Your task to perform on an android device: open wifi settings Image 0: 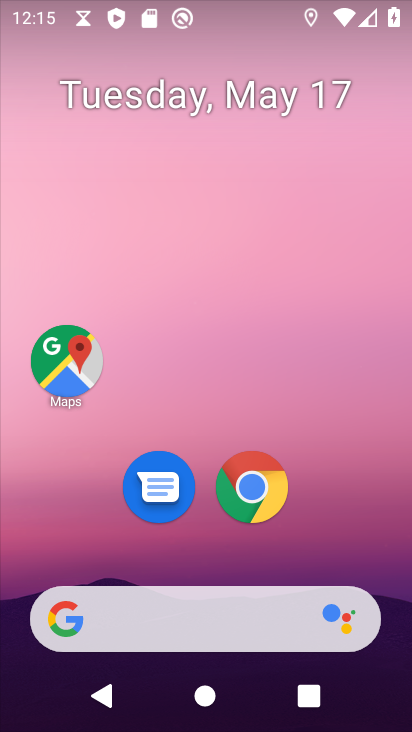
Step 0: drag from (312, 398) to (206, 7)
Your task to perform on an android device: open wifi settings Image 1: 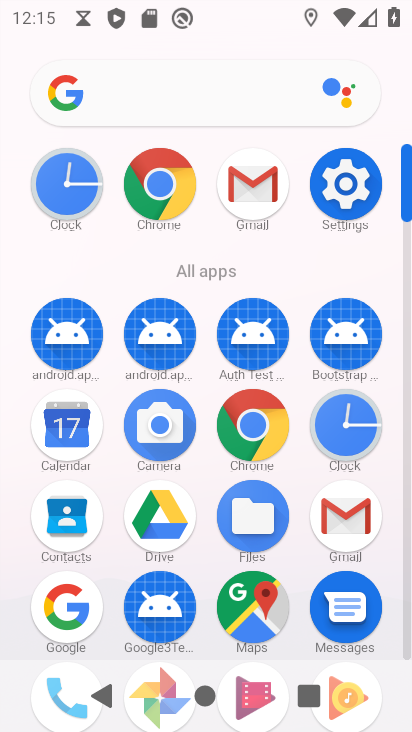
Step 1: drag from (10, 533) to (0, 218)
Your task to perform on an android device: open wifi settings Image 2: 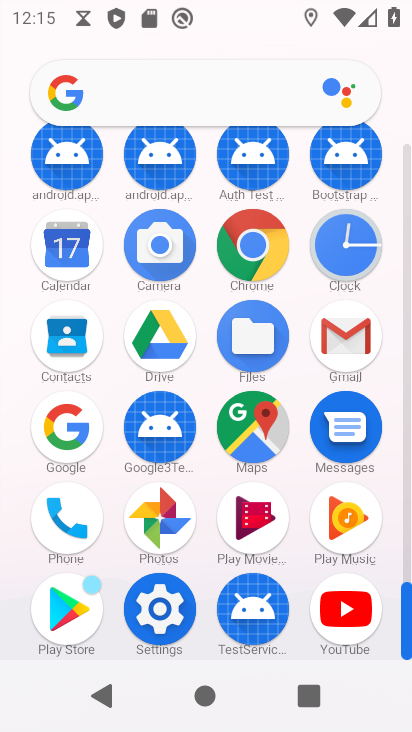
Step 2: click (154, 603)
Your task to perform on an android device: open wifi settings Image 3: 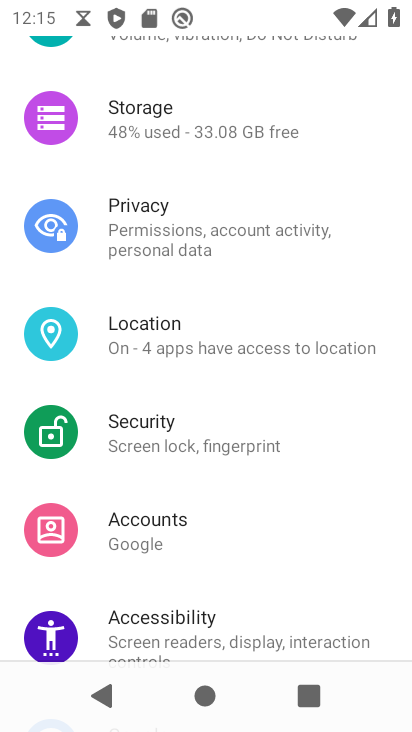
Step 3: drag from (257, 127) to (235, 444)
Your task to perform on an android device: open wifi settings Image 4: 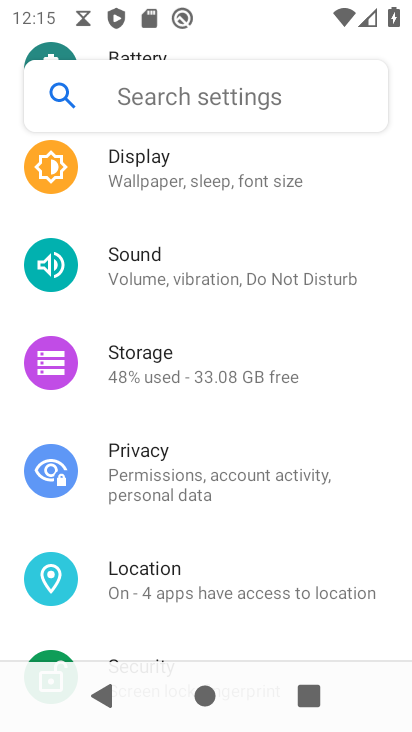
Step 4: drag from (230, 172) to (186, 589)
Your task to perform on an android device: open wifi settings Image 5: 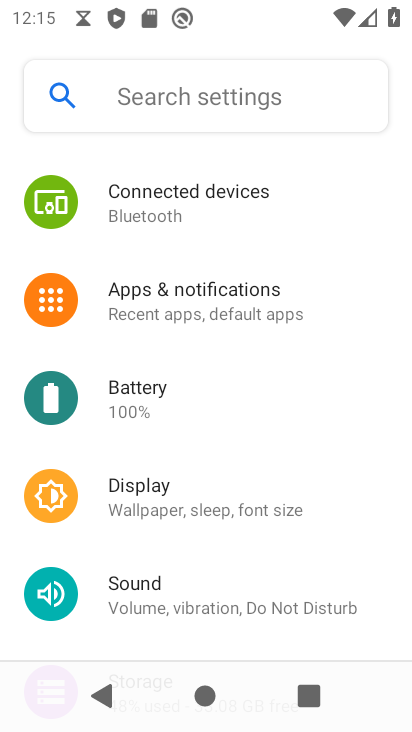
Step 5: drag from (249, 298) to (247, 576)
Your task to perform on an android device: open wifi settings Image 6: 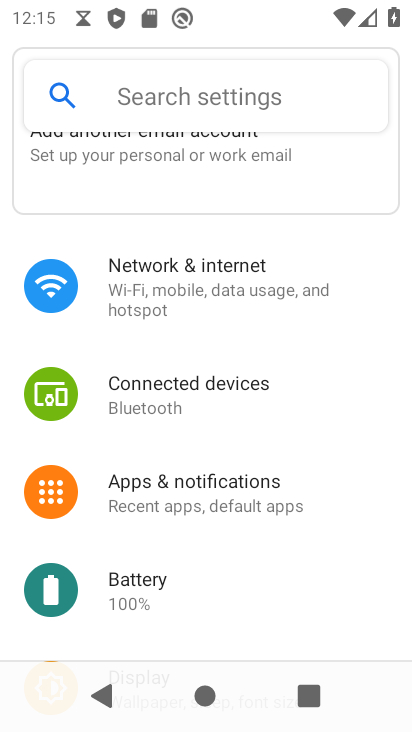
Step 6: click (230, 276)
Your task to perform on an android device: open wifi settings Image 7: 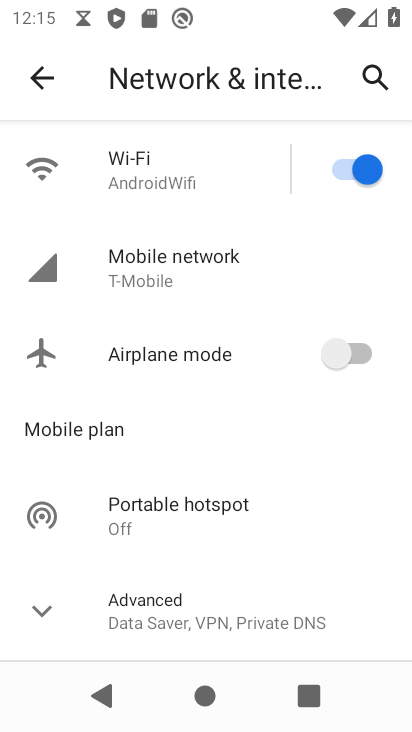
Step 7: click (142, 176)
Your task to perform on an android device: open wifi settings Image 8: 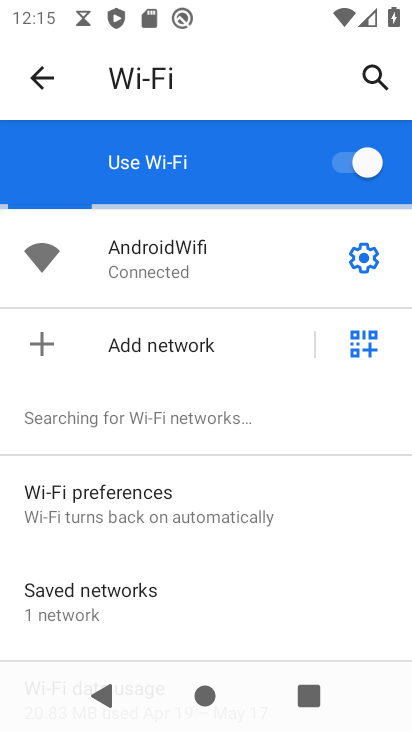
Step 8: task complete